Your task to perform on an android device: Go to accessibility settings Image 0: 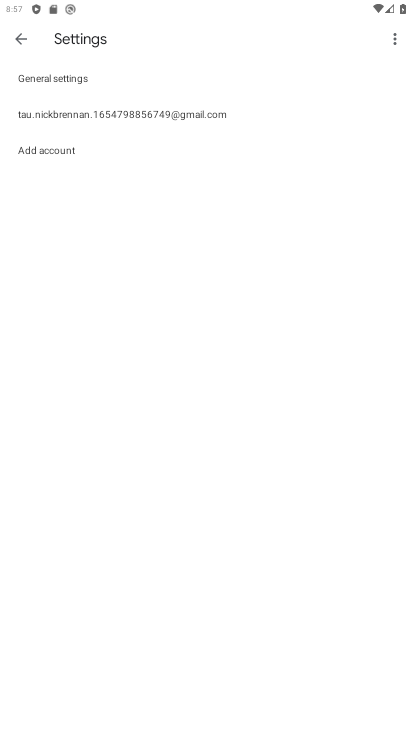
Step 0: press home button
Your task to perform on an android device: Go to accessibility settings Image 1: 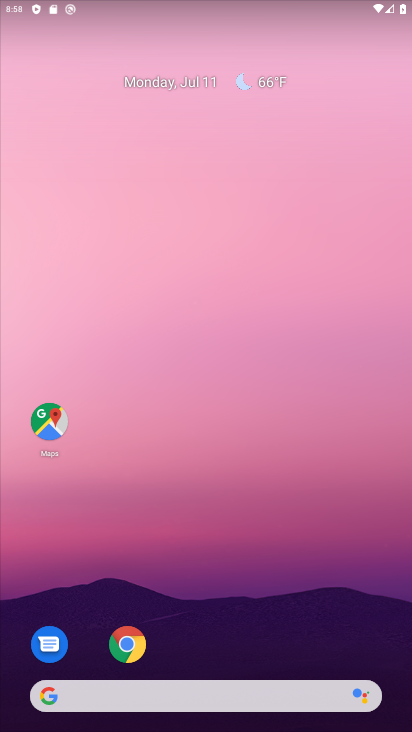
Step 1: drag from (329, 607) to (305, 113)
Your task to perform on an android device: Go to accessibility settings Image 2: 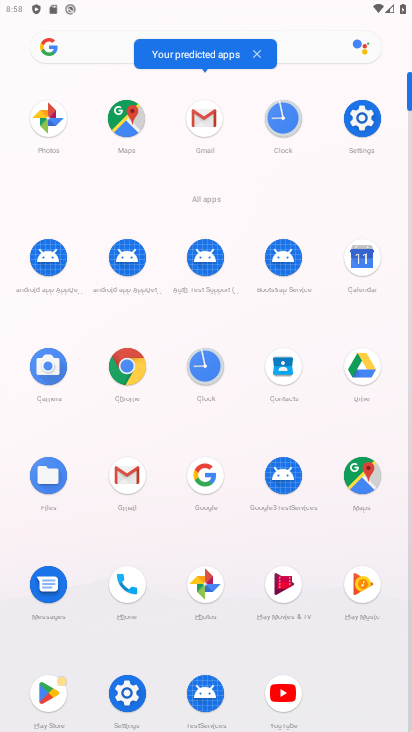
Step 2: click (362, 113)
Your task to perform on an android device: Go to accessibility settings Image 3: 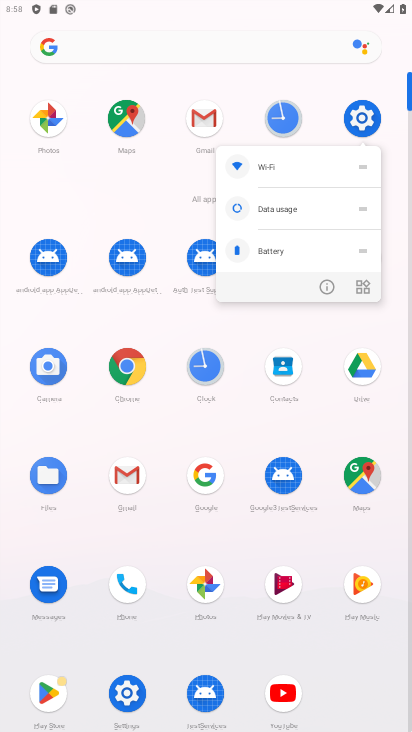
Step 3: click (362, 113)
Your task to perform on an android device: Go to accessibility settings Image 4: 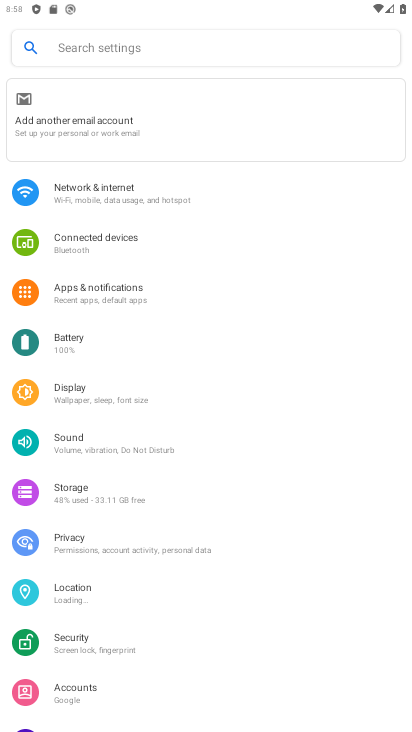
Step 4: drag from (283, 674) to (298, 288)
Your task to perform on an android device: Go to accessibility settings Image 5: 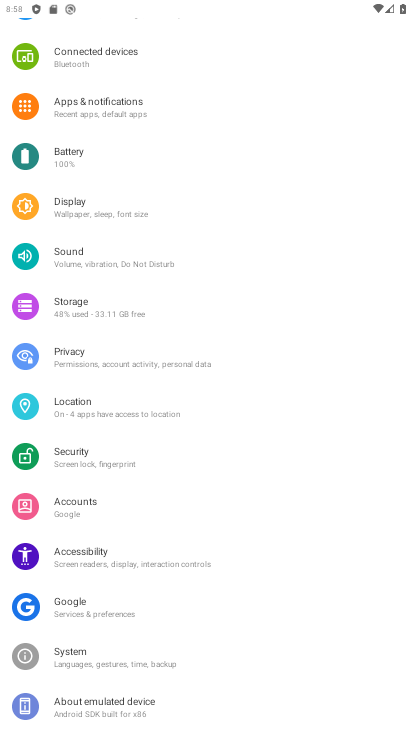
Step 5: click (92, 546)
Your task to perform on an android device: Go to accessibility settings Image 6: 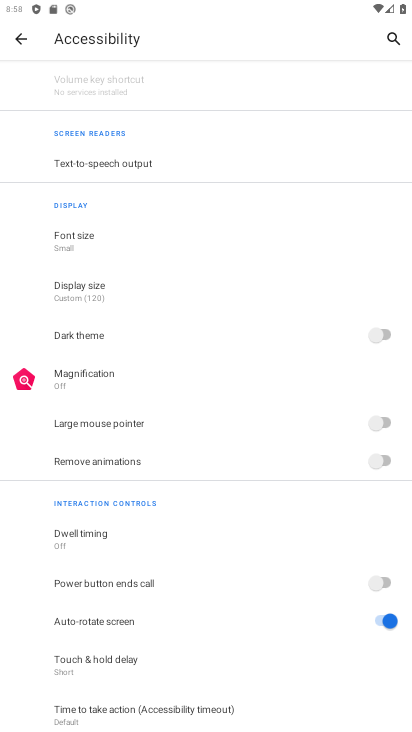
Step 6: task complete